Your task to perform on an android device: turn on airplane mode Image 0: 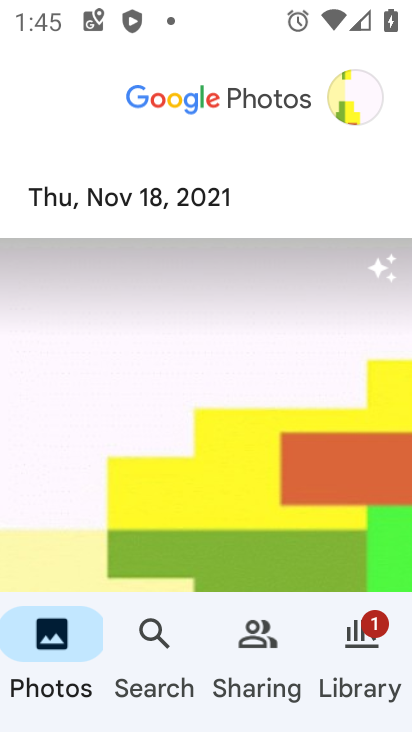
Step 0: press home button
Your task to perform on an android device: turn on airplane mode Image 1: 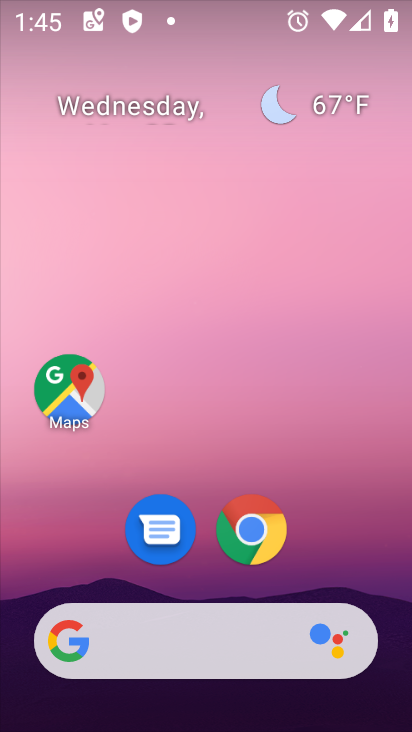
Step 1: drag from (334, 560) to (233, 251)
Your task to perform on an android device: turn on airplane mode Image 2: 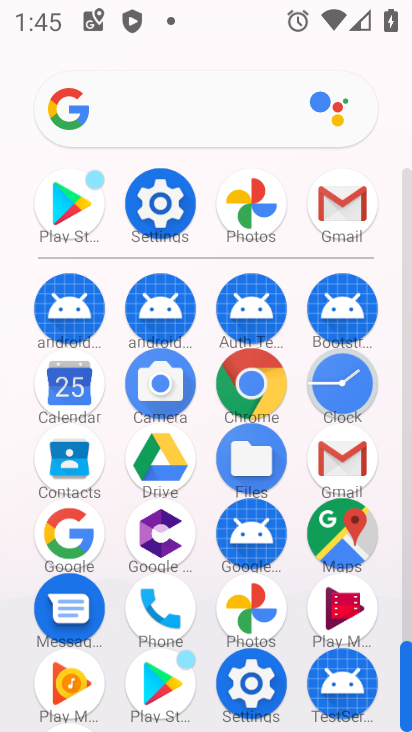
Step 2: click (159, 199)
Your task to perform on an android device: turn on airplane mode Image 3: 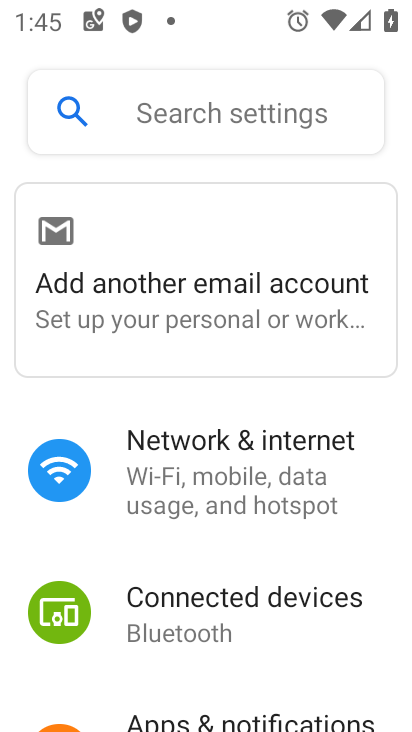
Step 3: click (192, 447)
Your task to perform on an android device: turn on airplane mode Image 4: 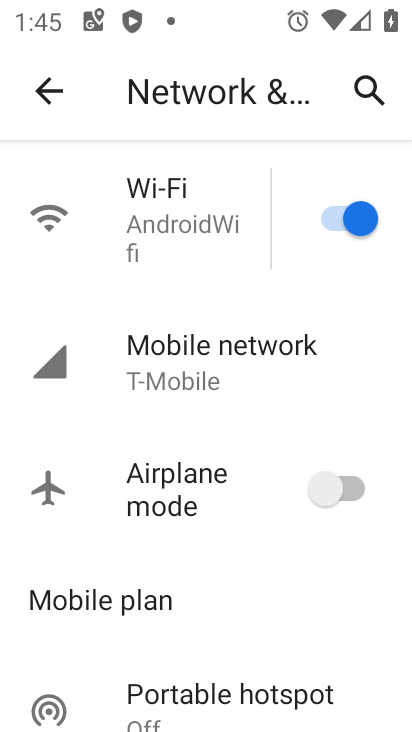
Step 4: click (331, 488)
Your task to perform on an android device: turn on airplane mode Image 5: 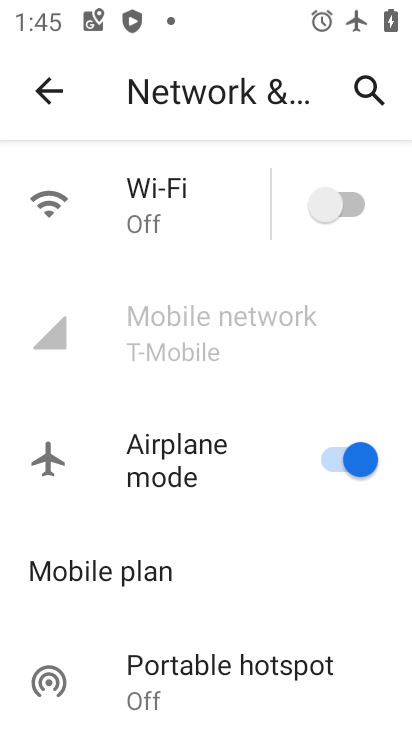
Step 5: task complete